Your task to perform on an android device: change the clock display to analog Image 0: 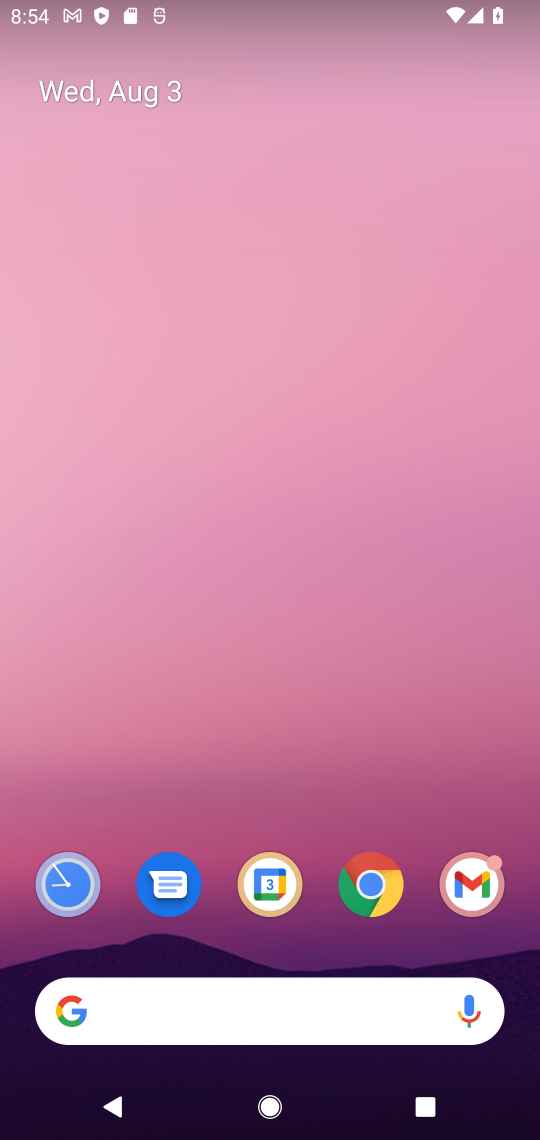
Step 0: drag from (18, 1138) to (321, 472)
Your task to perform on an android device: change the clock display to analog Image 1: 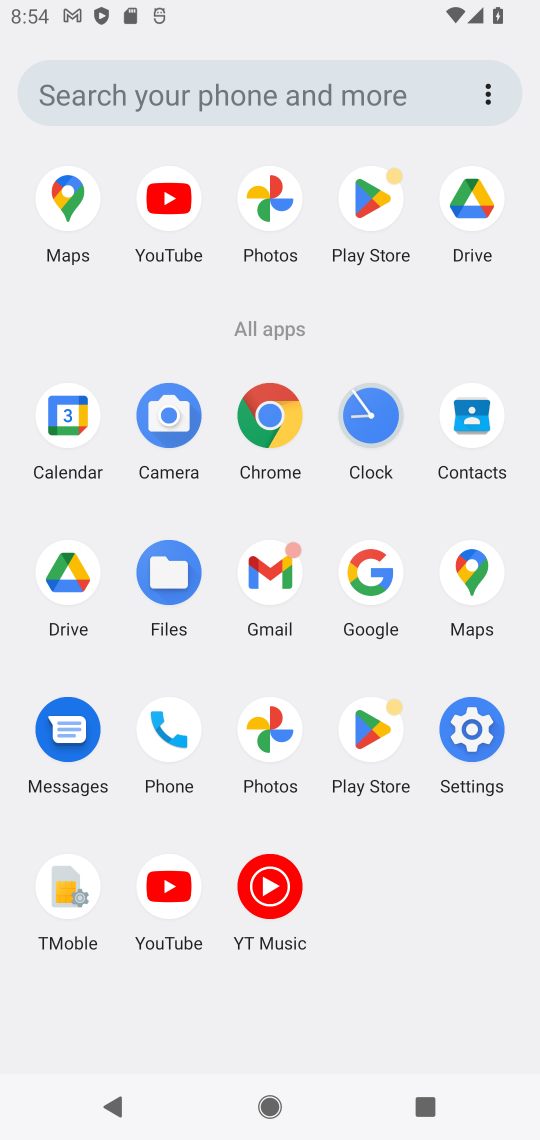
Step 1: click (376, 428)
Your task to perform on an android device: change the clock display to analog Image 2: 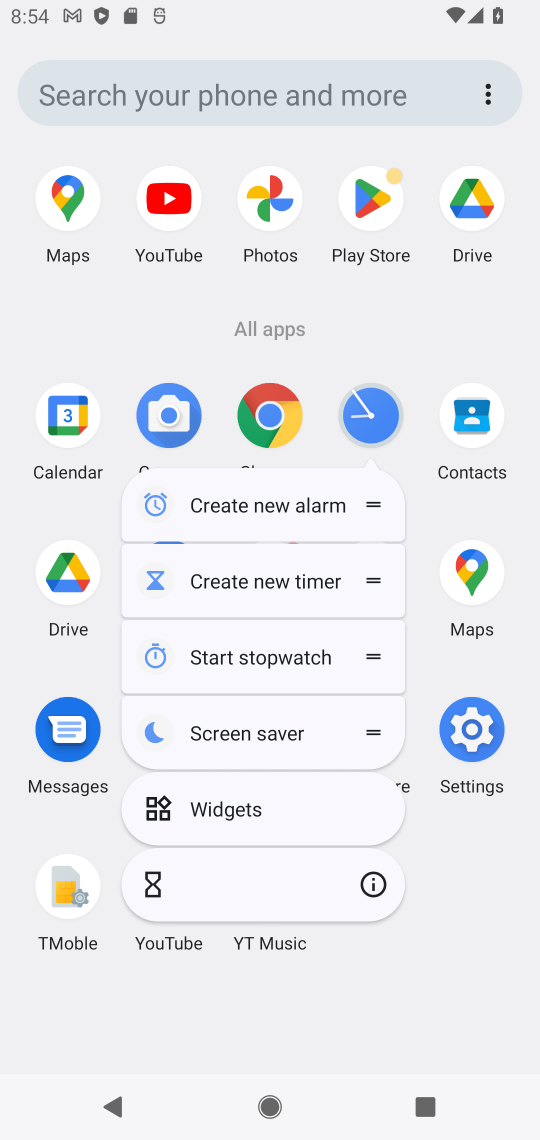
Step 2: click (376, 405)
Your task to perform on an android device: change the clock display to analog Image 3: 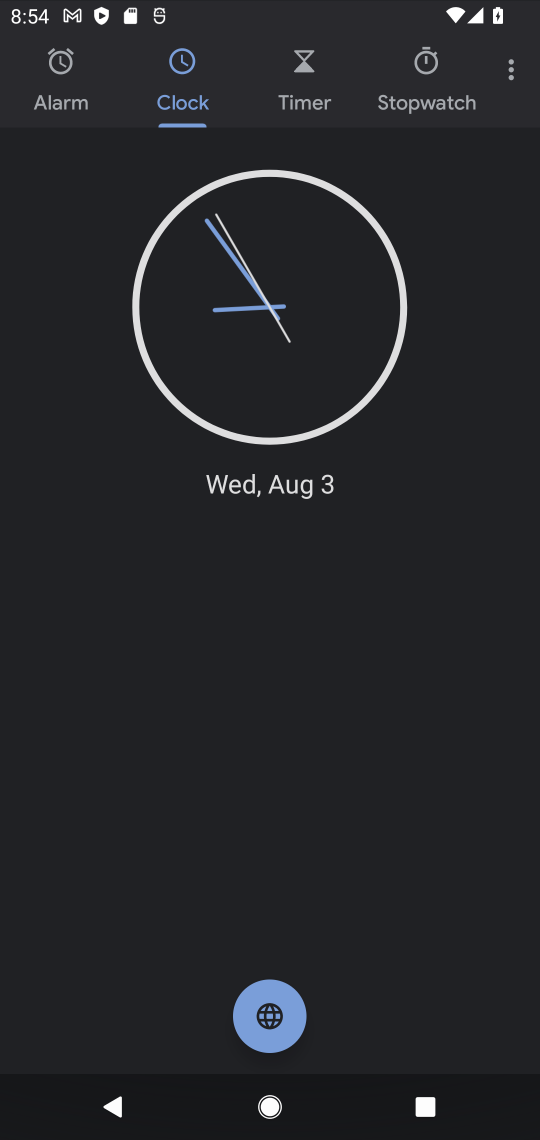
Step 3: click (378, 416)
Your task to perform on an android device: change the clock display to analog Image 4: 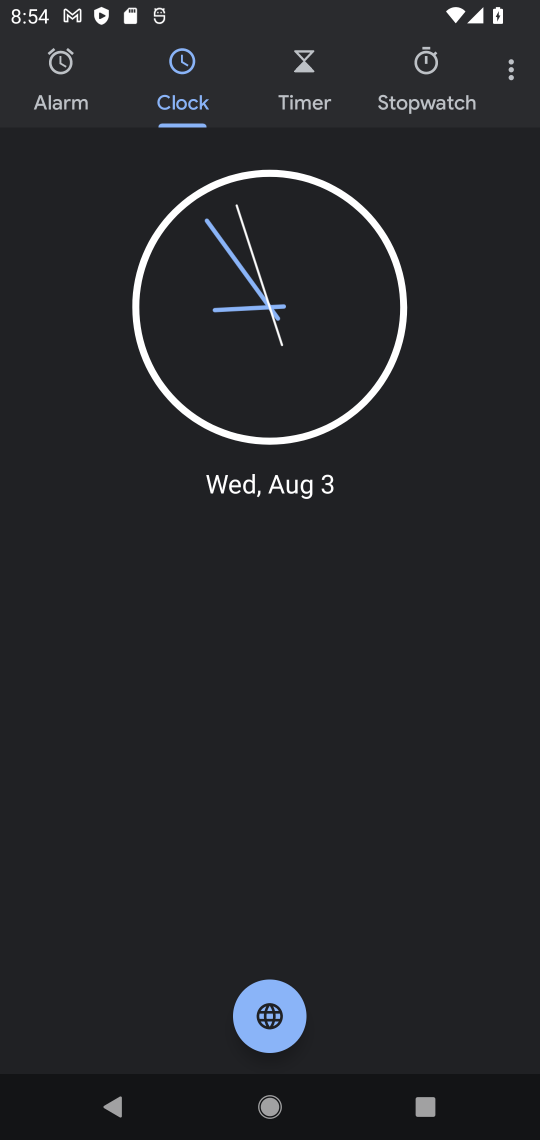
Step 4: click (504, 75)
Your task to perform on an android device: change the clock display to analog Image 5: 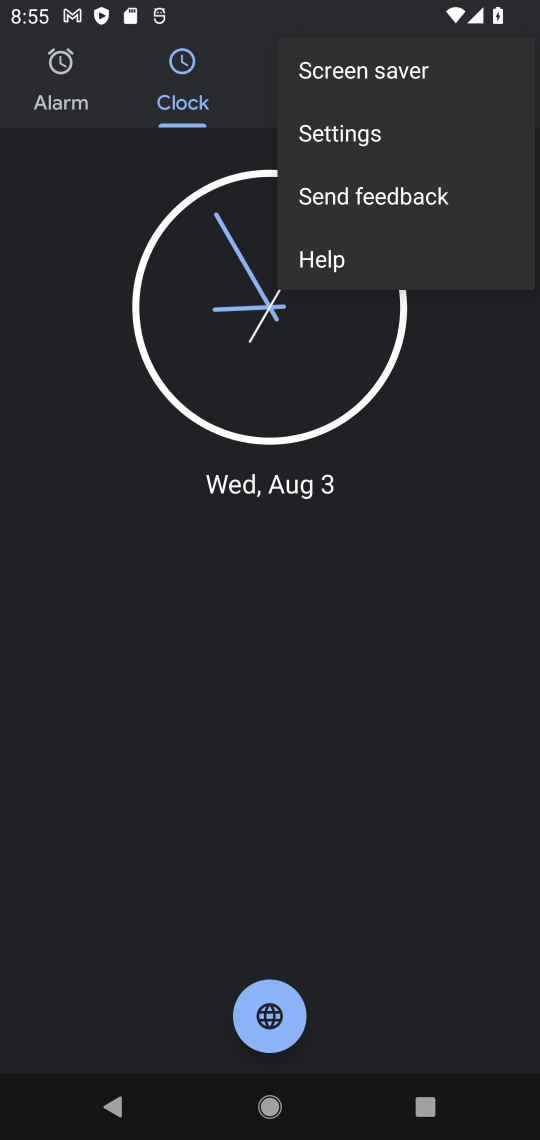
Step 5: click (339, 133)
Your task to perform on an android device: change the clock display to analog Image 6: 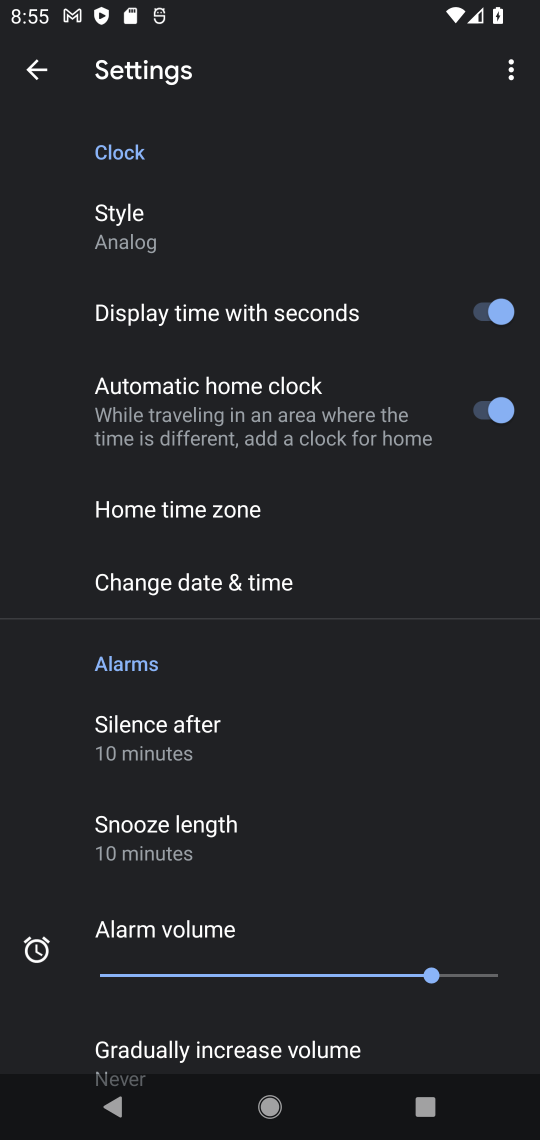
Step 6: click (178, 237)
Your task to perform on an android device: change the clock display to analog Image 7: 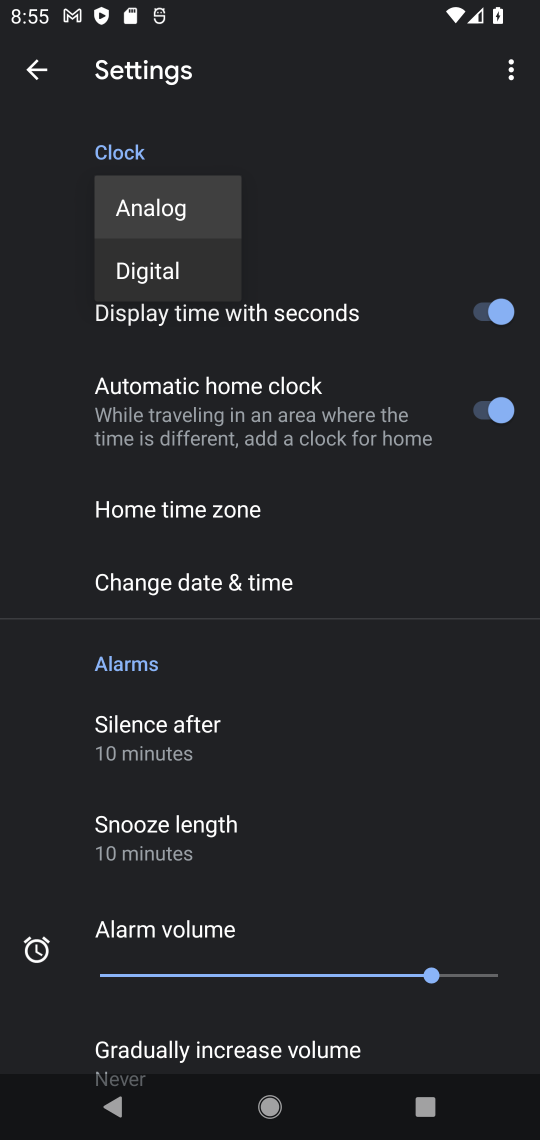
Step 7: click (512, 243)
Your task to perform on an android device: change the clock display to analog Image 8: 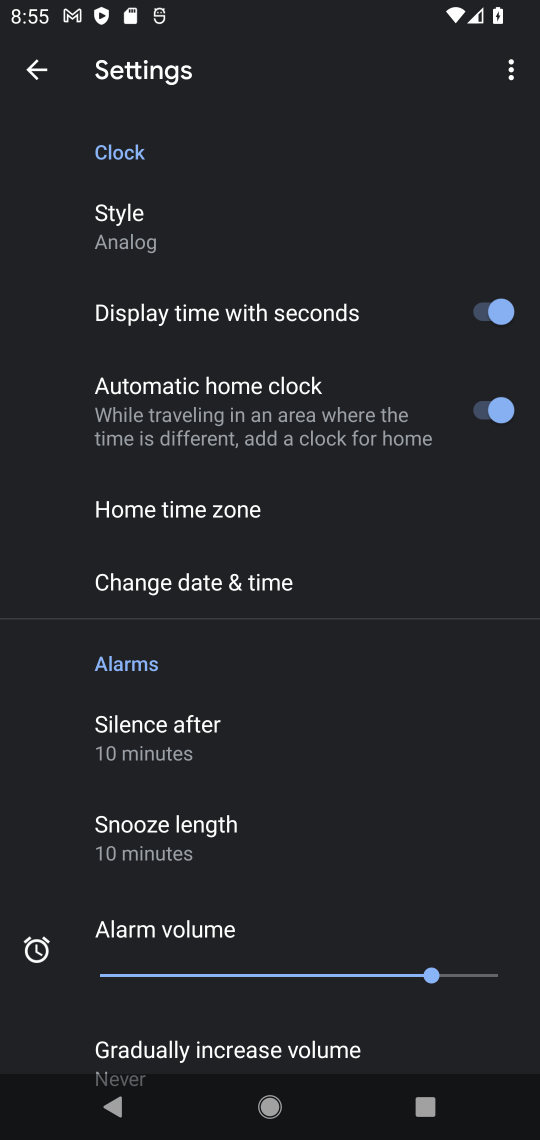
Step 8: task complete